Your task to perform on an android device: Open settings on Google Maps Image 0: 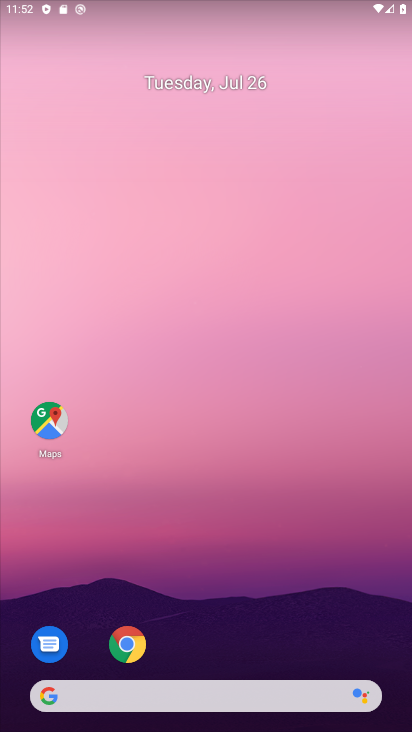
Step 0: click (219, 82)
Your task to perform on an android device: Open settings on Google Maps Image 1: 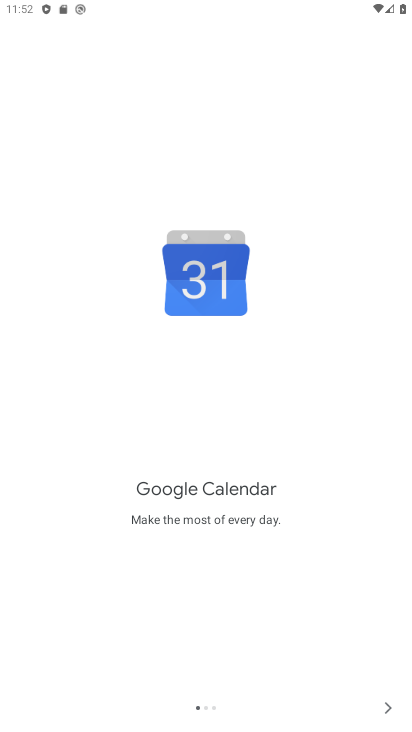
Step 1: click (386, 698)
Your task to perform on an android device: Open settings on Google Maps Image 2: 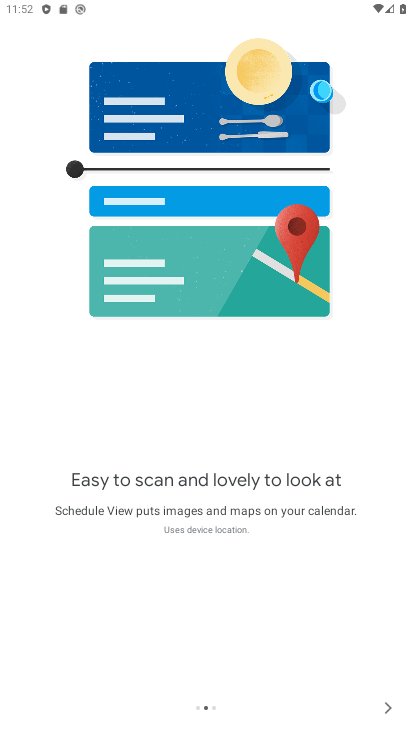
Step 2: click (384, 709)
Your task to perform on an android device: Open settings on Google Maps Image 3: 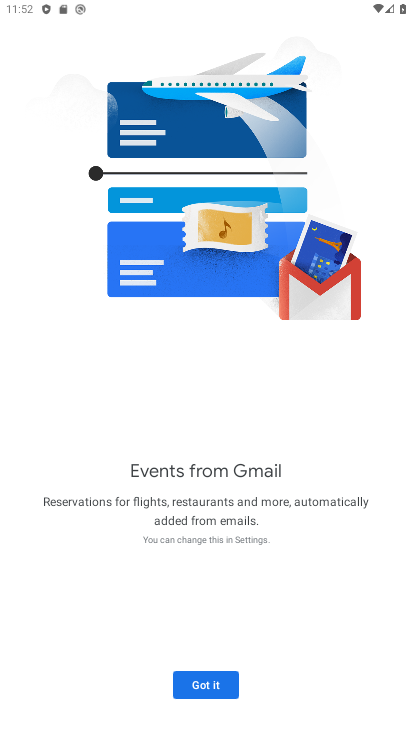
Step 3: click (189, 684)
Your task to perform on an android device: Open settings on Google Maps Image 4: 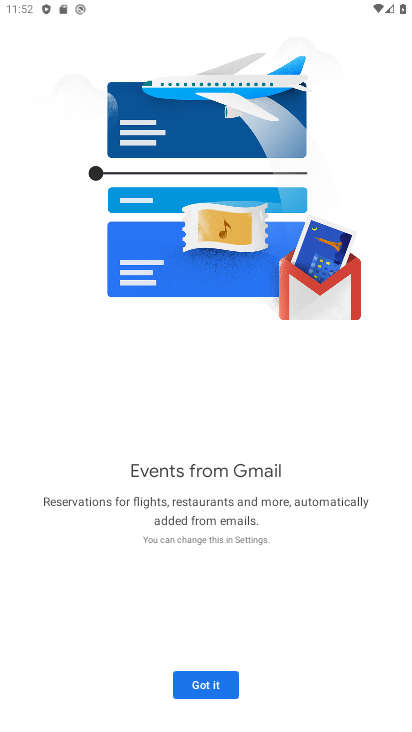
Step 4: click (193, 686)
Your task to perform on an android device: Open settings on Google Maps Image 5: 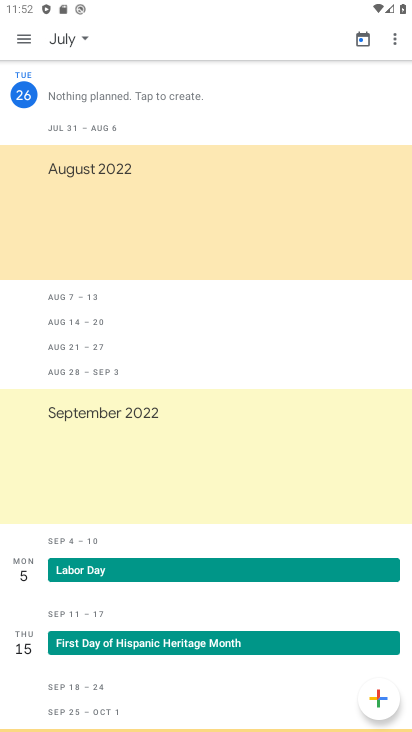
Step 5: press back button
Your task to perform on an android device: Open settings on Google Maps Image 6: 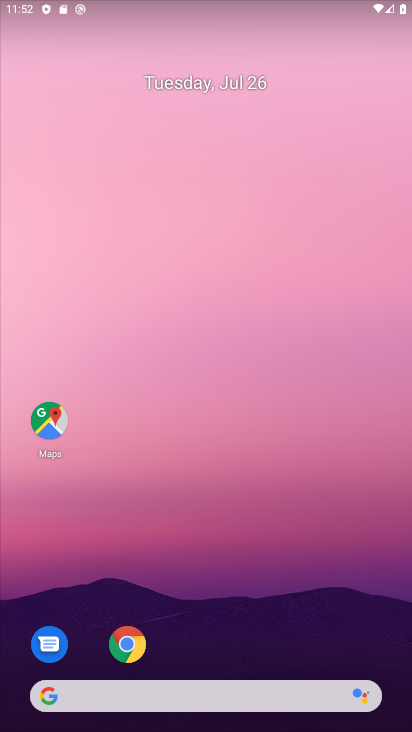
Step 6: drag from (143, 432) to (141, 29)
Your task to perform on an android device: Open settings on Google Maps Image 7: 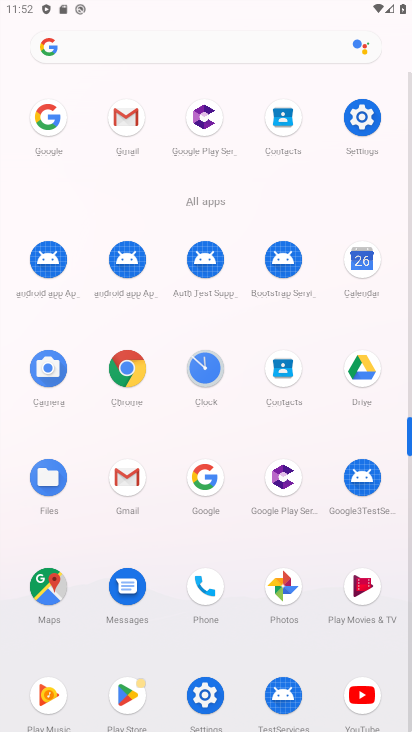
Step 7: click (42, 582)
Your task to perform on an android device: Open settings on Google Maps Image 8: 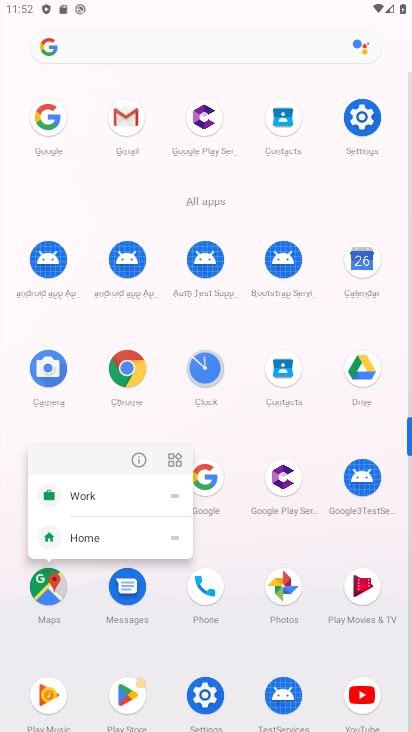
Step 8: click (48, 582)
Your task to perform on an android device: Open settings on Google Maps Image 9: 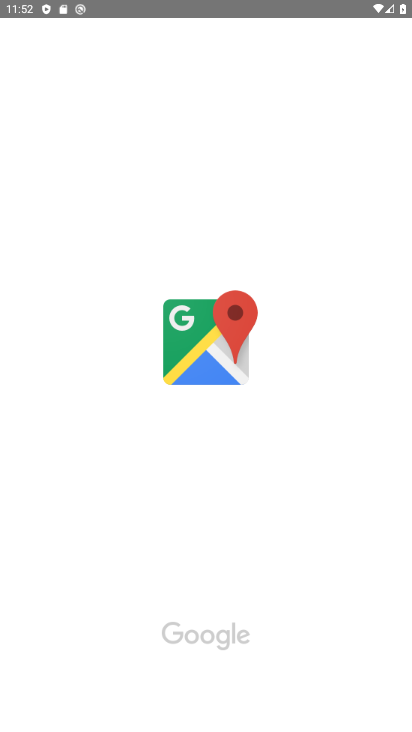
Step 9: click (51, 587)
Your task to perform on an android device: Open settings on Google Maps Image 10: 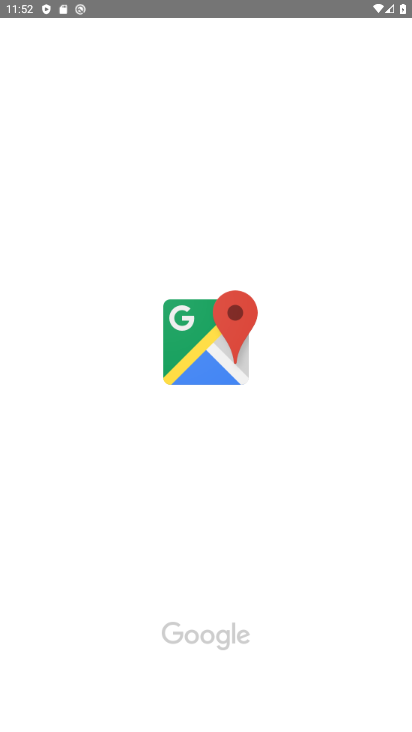
Step 10: click (56, 589)
Your task to perform on an android device: Open settings on Google Maps Image 11: 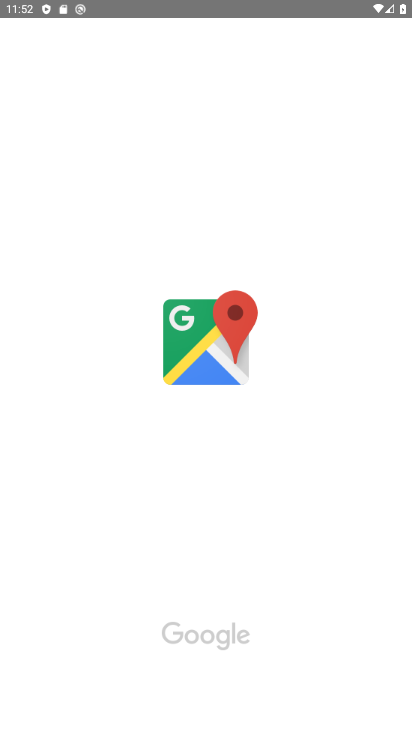
Step 11: drag from (222, 310) to (221, 347)
Your task to perform on an android device: Open settings on Google Maps Image 12: 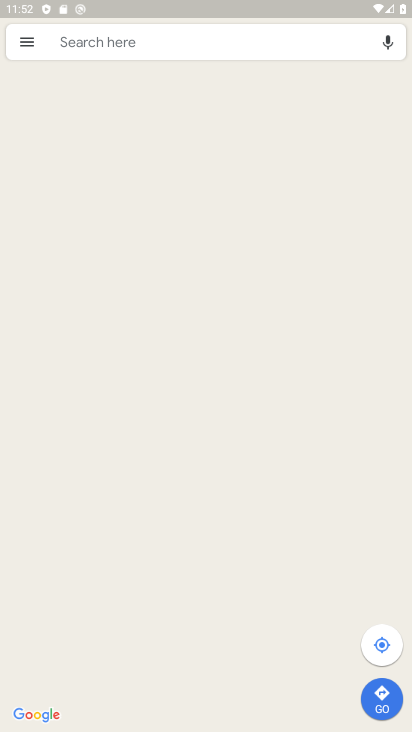
Step 12: click (26, 41)
Your task to perform on an android device: Open settings on Google Maps Image 13: 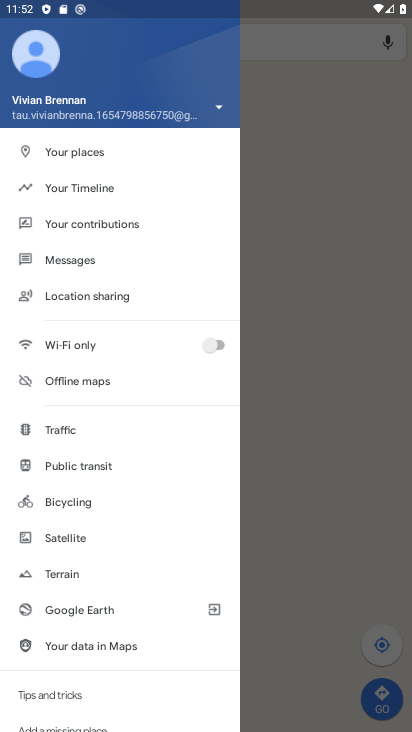
Step 13: drag from (52, 612) to (125, 266)
Your task to perform on an android device: Open settings on Google Maps Image 14: 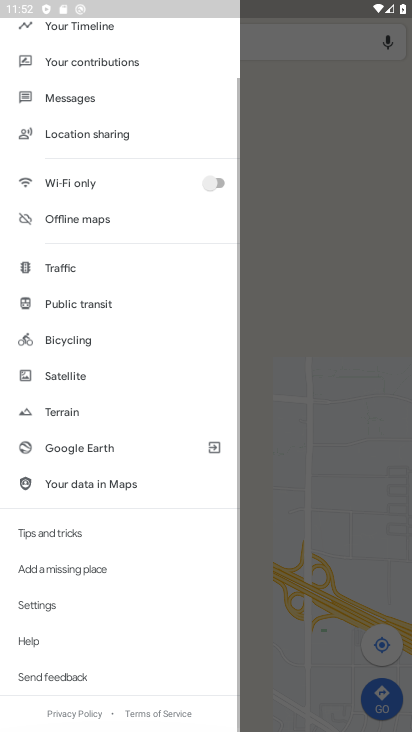
Step 14: drag from (77, 648) to (86, 113)
Your task to perform on an android device: Open settings on Google Maps Image 15: 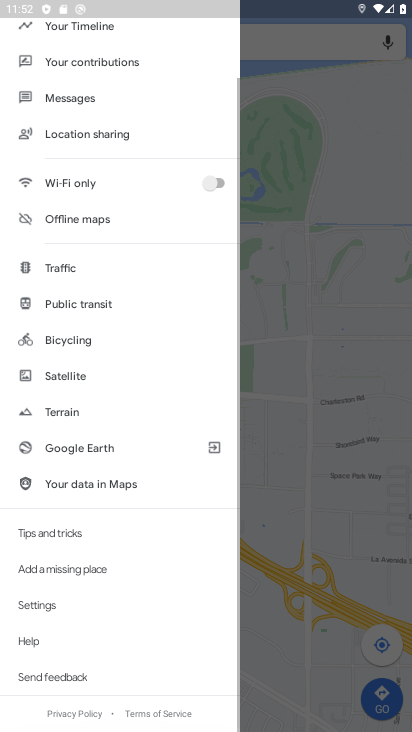
Step 15: click (27, 602)
Your task to perform on an android device: Open settings on Google Maps Image 16: 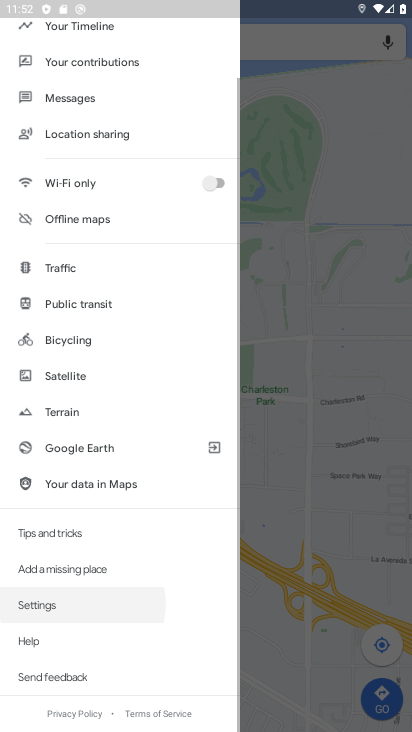
Step 16: click (28, 602)
Your task to perform on an android device: Open settings on Google Maps Image 17: 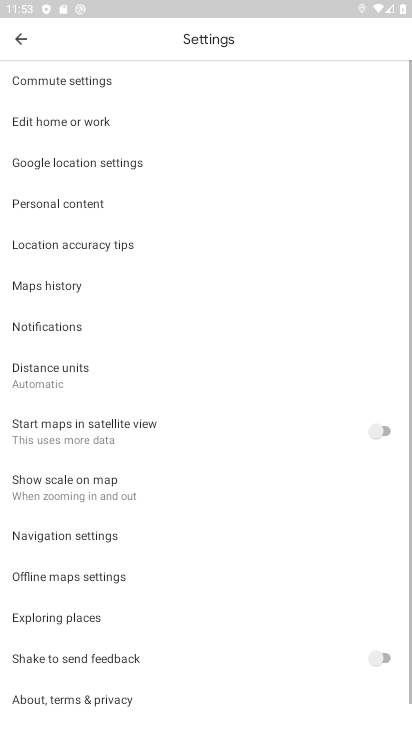
Step 17: task complete